Your task to perform on an android device: What's the weather like in Seoul? Image 0: 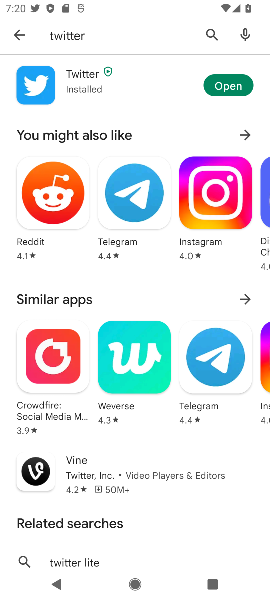
Step 0: press home button
Your task to perform on an android device: What's the weather like in Seoul? Image 1: 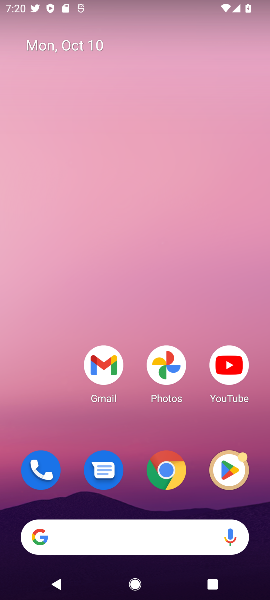
Step 1: click (167, 464)
Your task to perform on an android device: What's the weather like in Seoul? Image 2: 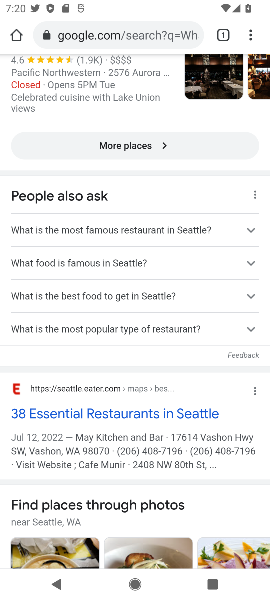
Step 2: click (107, 31)
Your task to perform on an android device: What's the weather like in Seoul? Image 3: 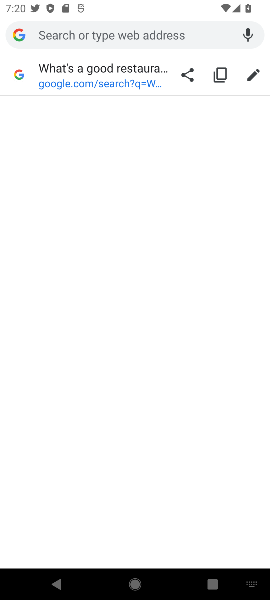
Step 3: type "What's the weather like in Seoul?"
Your task to perform on an android device: What's the weather like in Seoul? Image 4: 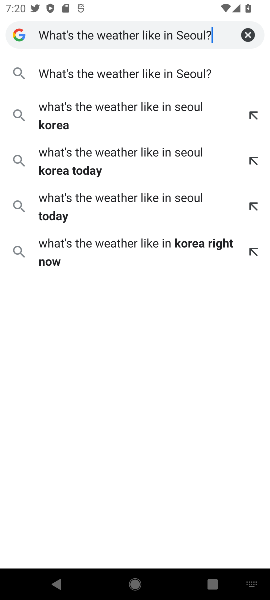
Step 4: click (111, 77)
Your task to perform on an android device: What's the weather like in Seoul? Image 5: 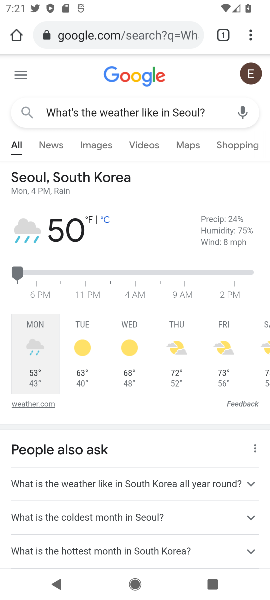
Step 5: task complete